Your task to perform on an android device: change notification settings in the gmail app Image 0: 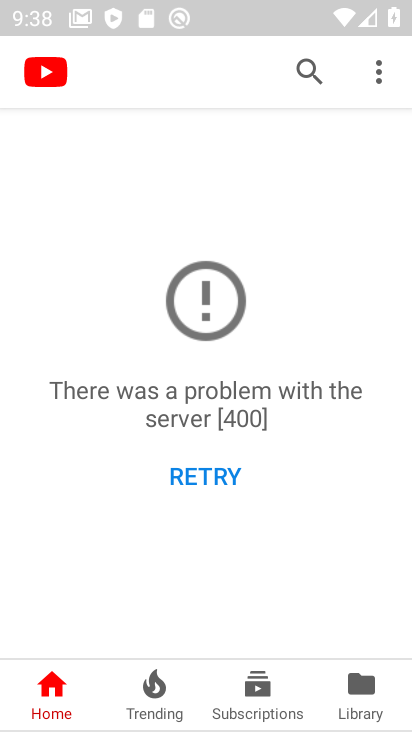
Step 0: press home button
Your task to perform on an android device: change notification settings in the gmail app Image 1: 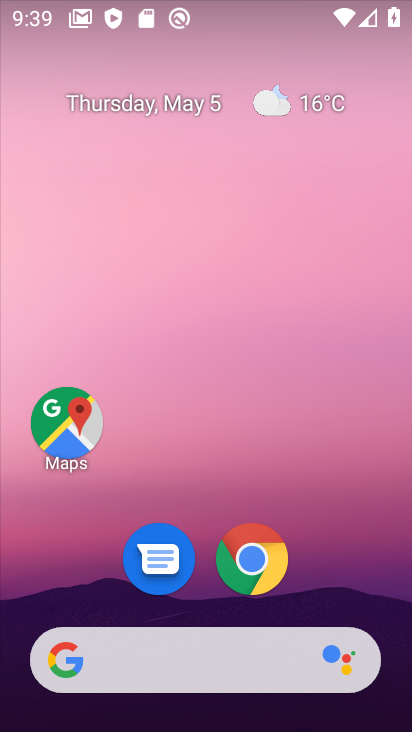
Step 1: drag from (200, 605) to (215, 28)
Your task to perform on an android device: change notification settings in the gmail app Image 2: 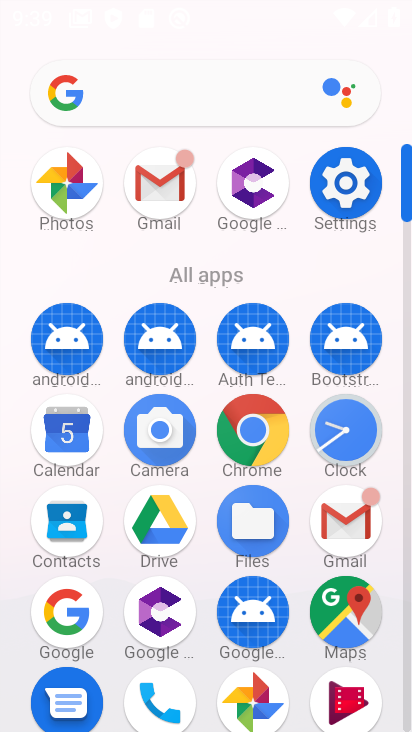
Step 2: click (329, 519)
Your task to perform on an android device: change notification settings in the gmail app Image 3: 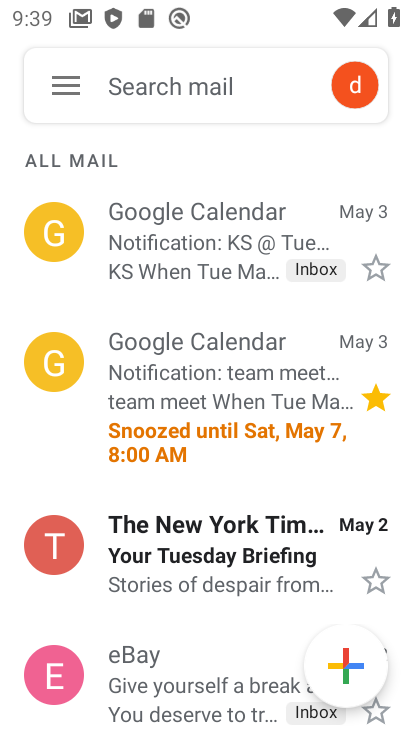
Step 3: click (57, 86)
Your task to perform on an android device: change notification settings in the gmail app Image 4: 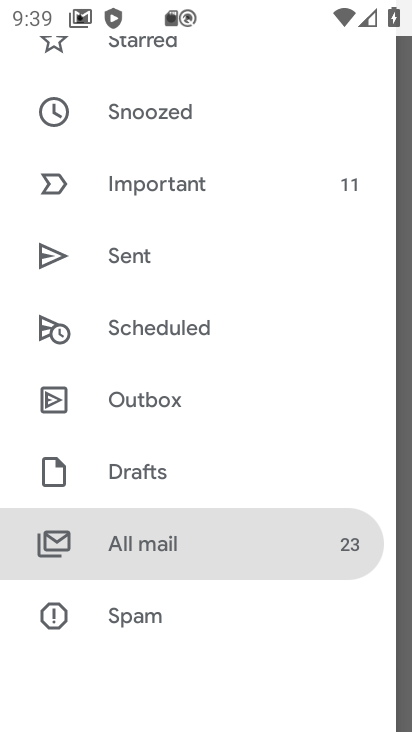
Step 4: drag from (151, 553) to (213, 101)
Your task to perform on an android device: change notification settings in the gmail app Image 5: 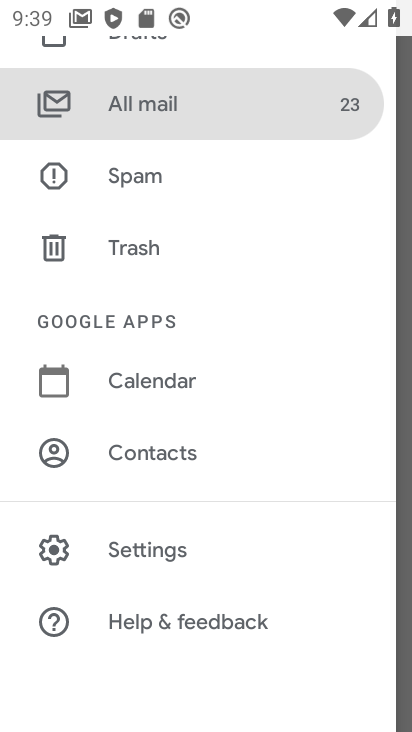
Step 5: click (160, 547)
Your task to perform on an android device: change notification settings in the gmail app Image 6: 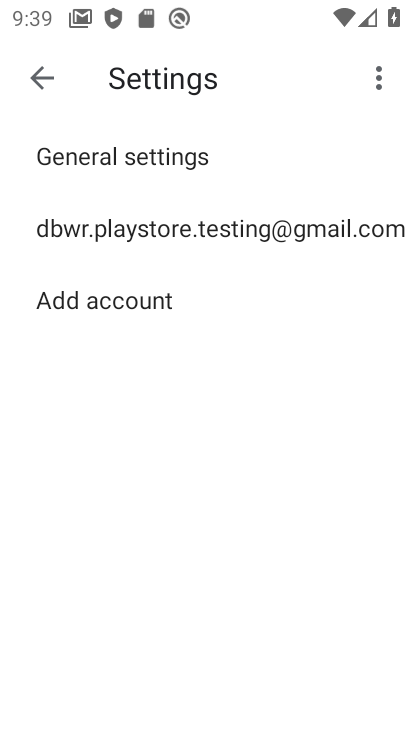
Step 6: click (158, 162)
Your task to perform on an android device: change notification settings in the gmail app Image 7: 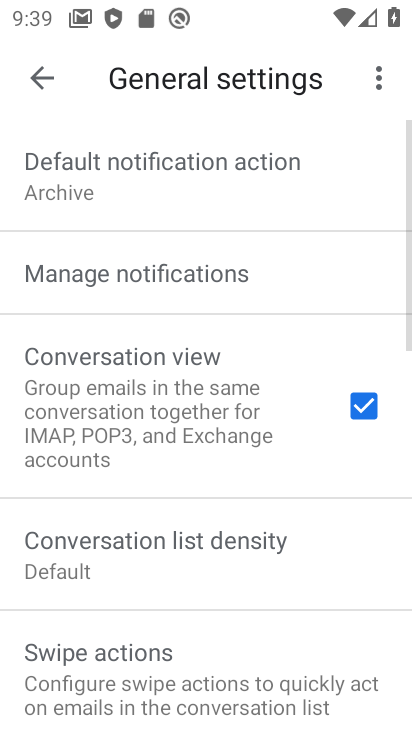
Step 7: click (161, 290)
Your task to perform on an android device: change notification settings in the gmail app Image 8: 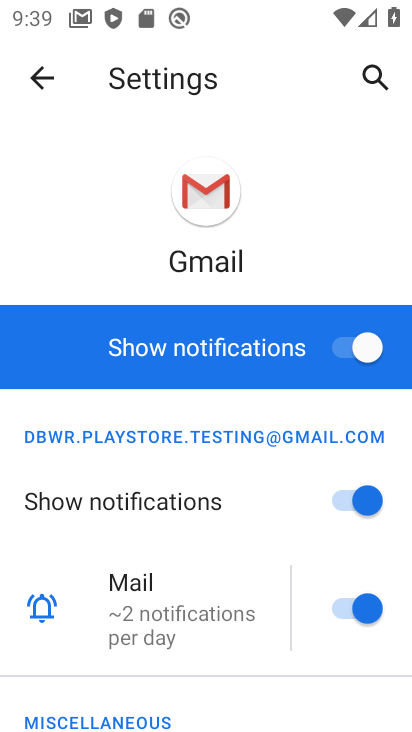
Step 8: click (318, 346)
Your task to perform on an android device: change notification settings in the gmail app Image 9: 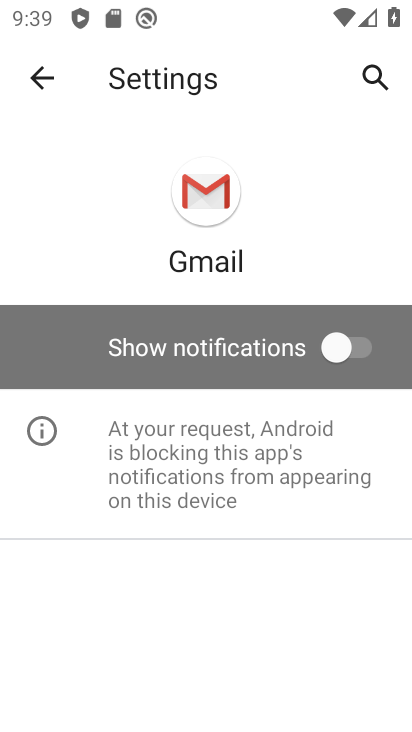
Step 9: task complete